Your task to perform on an android device: Go to network settings Image 0: 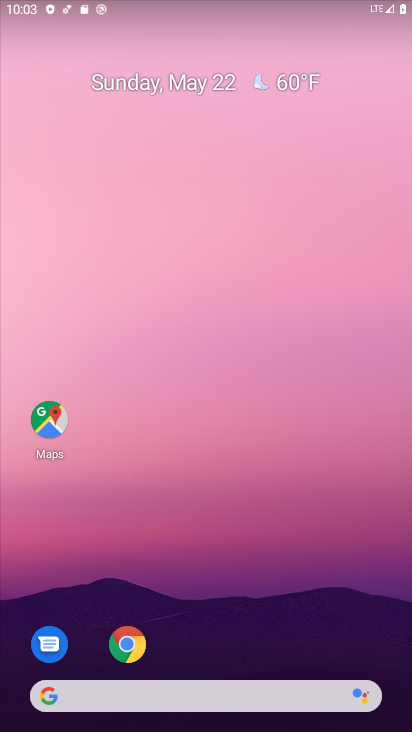
Step 0: drag from (258, 685) to (323, 327)
Your task to perform on an android device: Go to network settings Image 1: 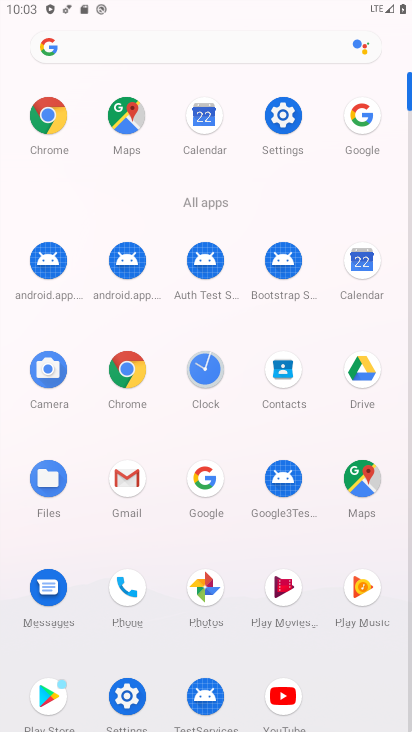
Step 1: click (285, 122)
Your task to perform on an android device: Go to network settings Image 2: 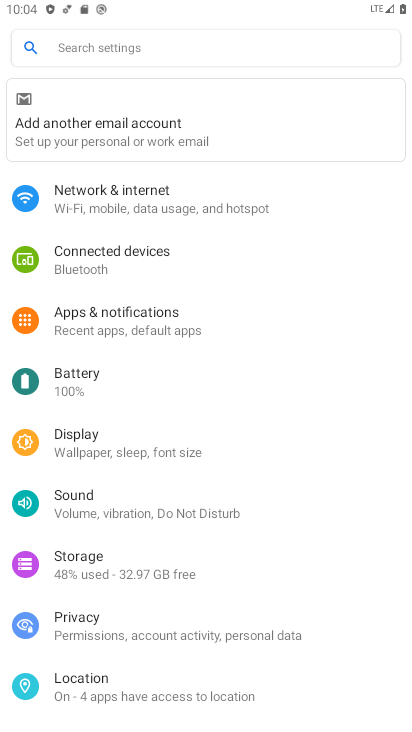
Step 2: click (158, 194)
Your task to perform on an android device: Go to network settings Image 3: 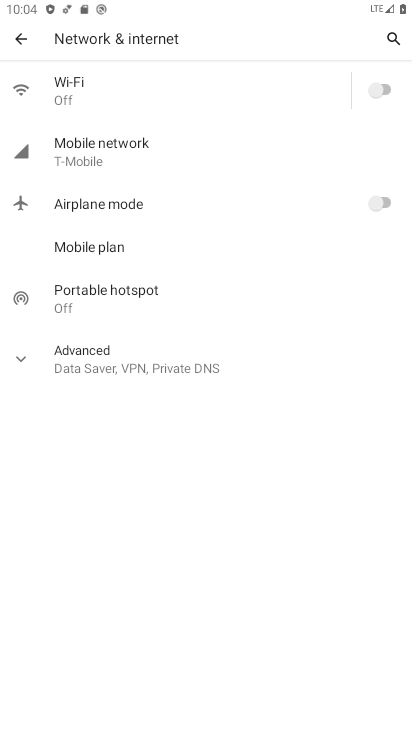
Step 3: click (141, 373)
Your task to perform on an android device: Go to network settings Image 4: 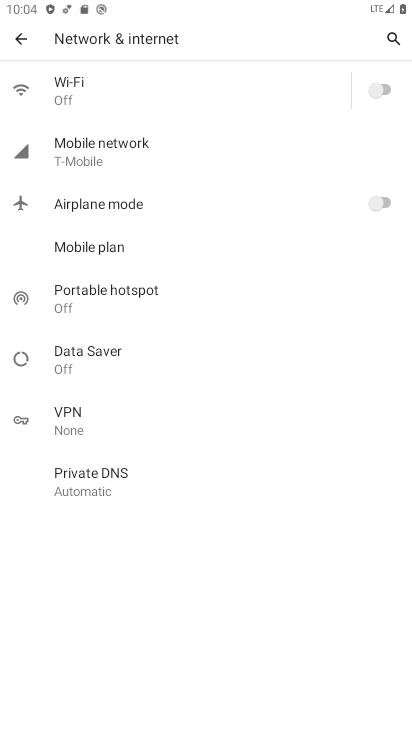
Step 4: task complete